Your task to perform on an android device: turn notification dots off Image 0: 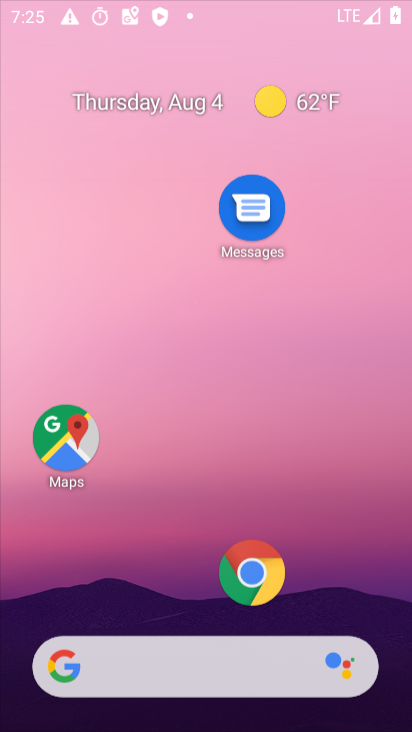
Step 0: press home button
Your task to perform on an android device: turn notification dots off Image 1: 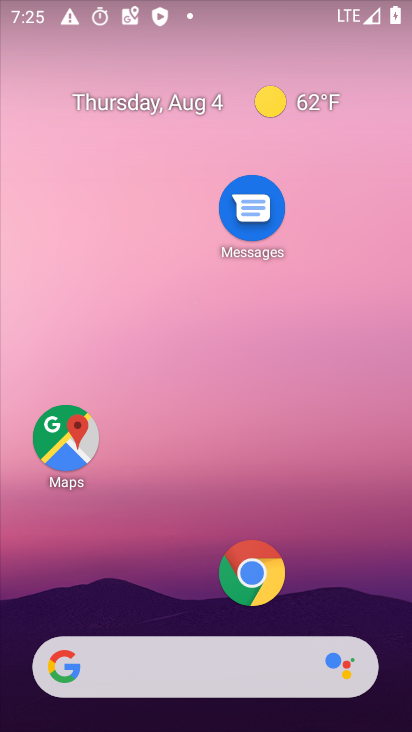
Step 1: drag from (200, 449) to (221, 155)
Your task to perform on an android device: turn notification dots off Image 2: 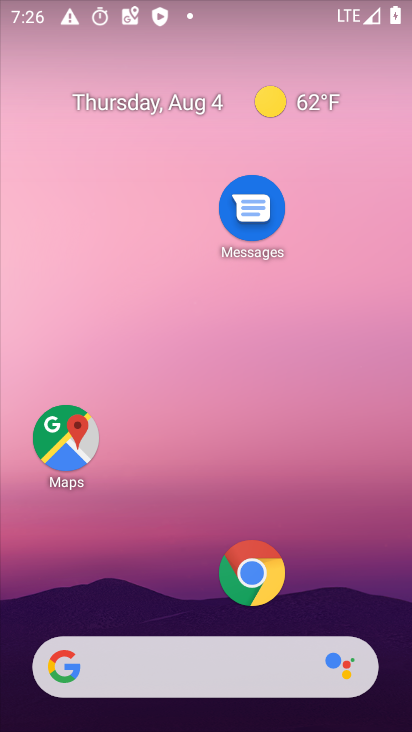
Step 2: drag from (199, 518) to (204, 175)
Your task to perform on an android device: turn notification dots off Image 3: 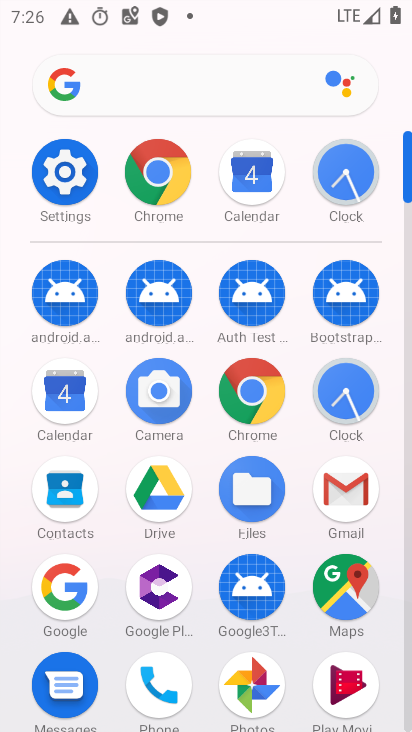
Step 3: click (65, 177)
Your task to perform on an android device: turn notification dots off Image 4: 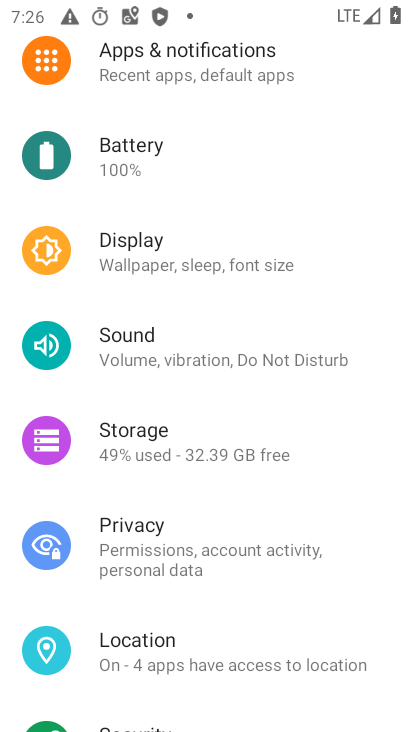
Step 4: click (186, 58)
Your task to perform on an android device: turn notification dots off Image 5: 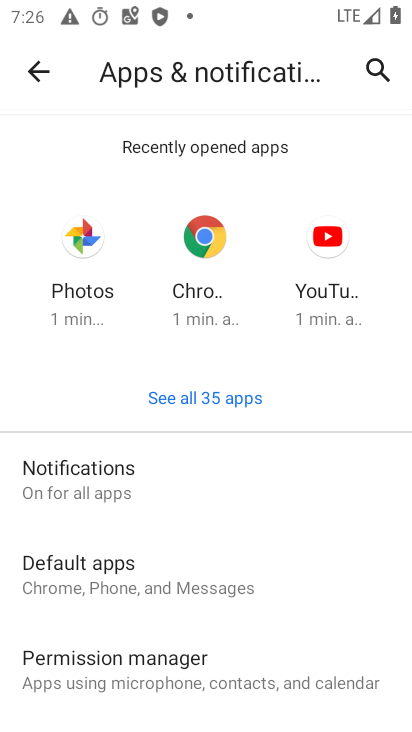
Step 5: click (78, 473)
Your task to perform on an android device: turn notification dots off Image 6: 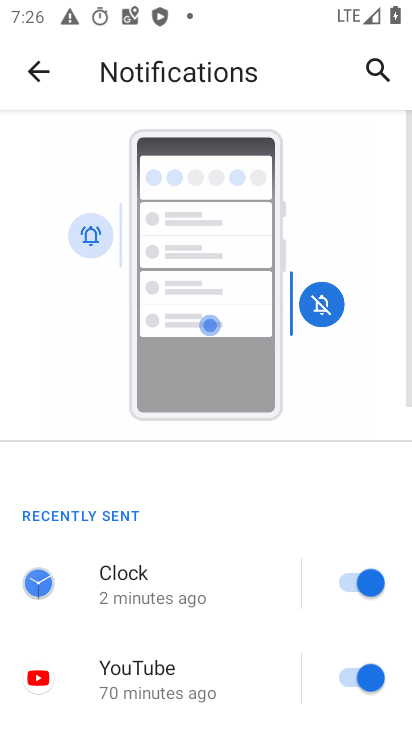
Step 6: drag from (300, 636) to (269, 303)
Your task to perform on an android device: turn notification dots off Image 7: 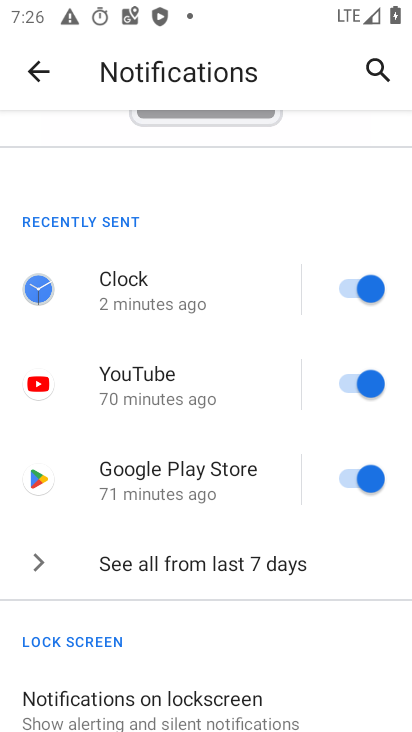
Step 7: drag from (237, 668) to (240, 371)
Your task to perform on an android device: turn notification dots off Image 8: 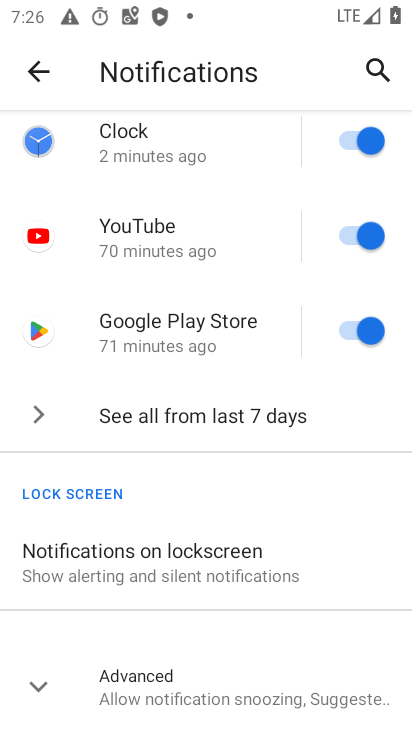
Step 8: click (144, 684)
Your task to perform on an android device: turn notification dots off Image 9: 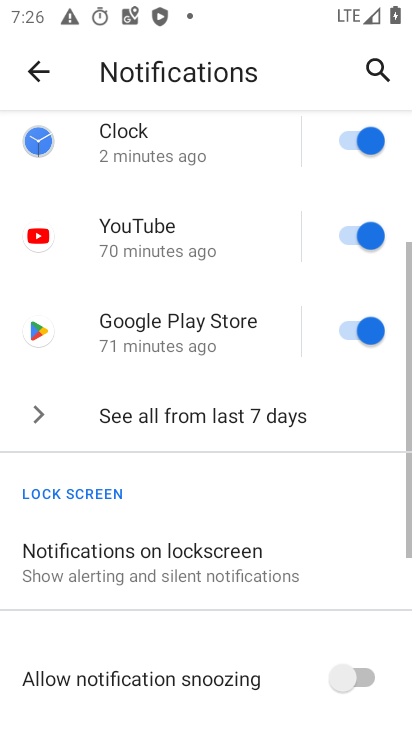
Step 9: drag from (175, 691) to (204, 332)
Your task to perform on an android device: turn notification dots off Image 10: 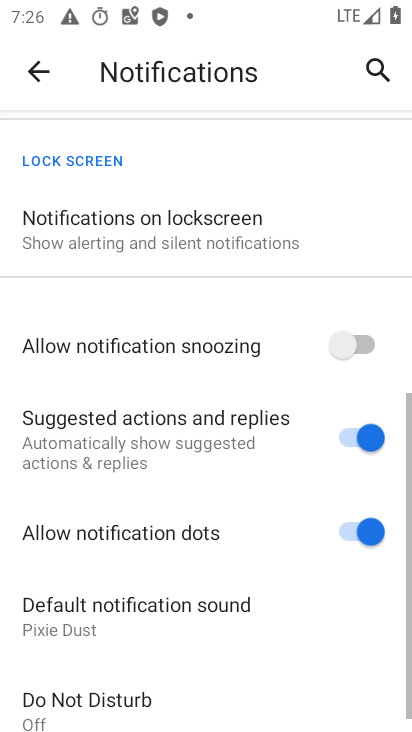
Step 10: drag from (191, 646) to (235, 244)
Your task to perform on an android device: turn notification dots off Image 11: 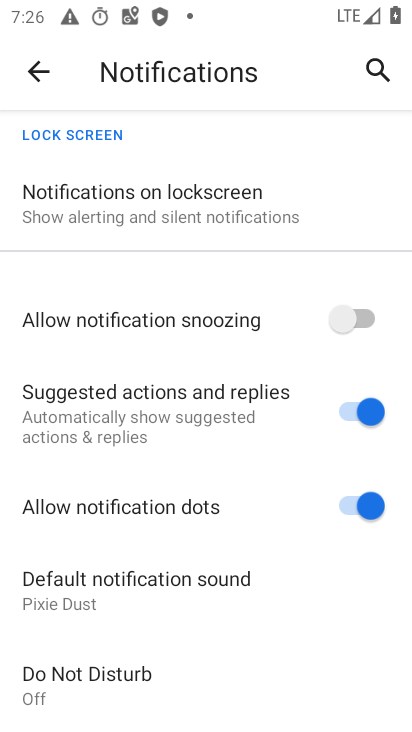
Step 11: click (366, 500)
Your task to perform on an android device: turn notification dots off Image 12: 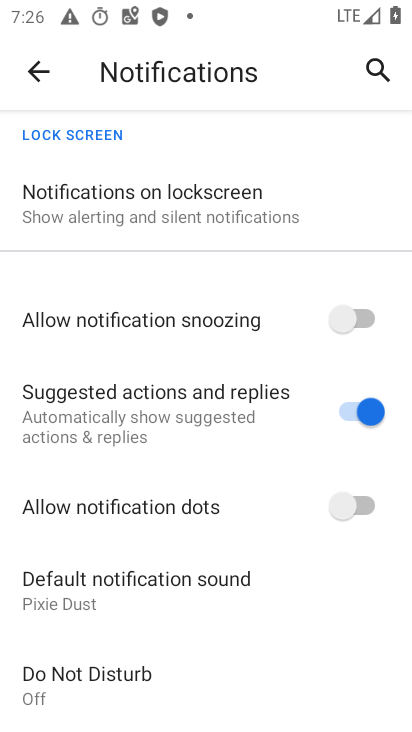
Step 12: task complete